Your task to perform on an android device: check the backup settings in the google photos Image 0: 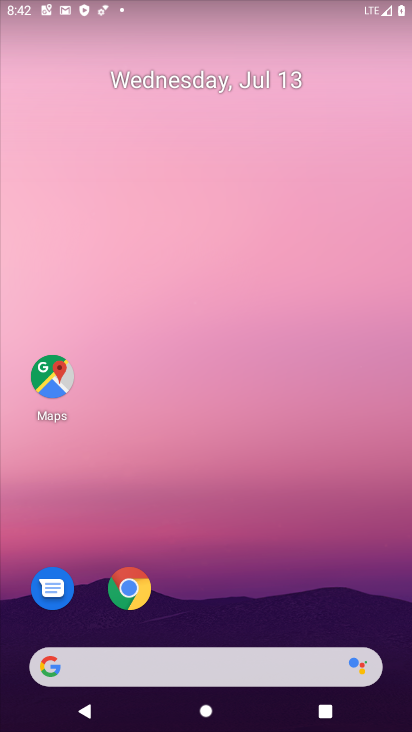
Step 0: drag from (239, 612) to (243, 181)
Your task to perform on an android device: check the backup settings in the google photos Image 1: 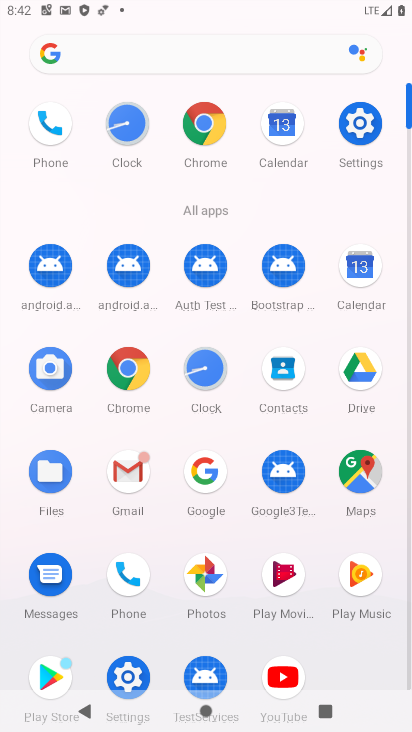
Step 1: click (210, 569)
Your task to perform on an android device: check the backup settings in the google photos Image 2: 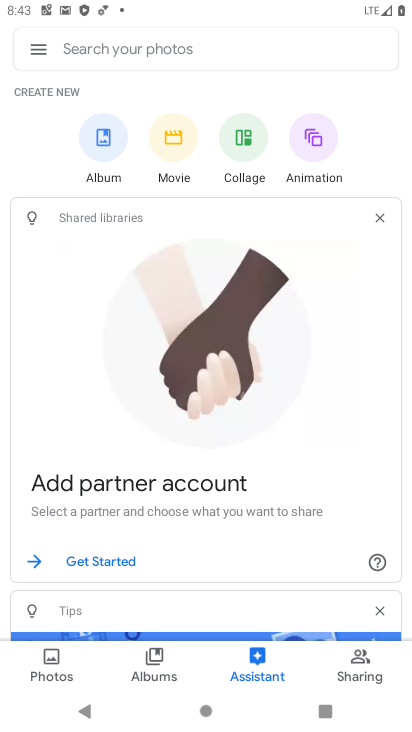
Step 2: click (38, 48)
Your task to perform on an android device: check the backup settings in the google photos Image 3: 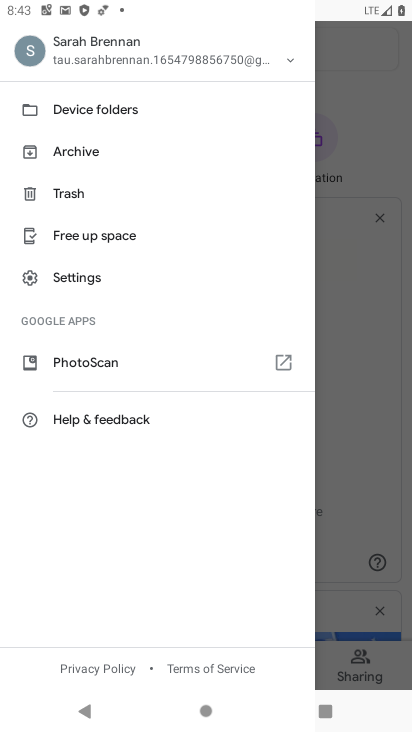
Step 3: click (80, 270)
Your task to perform on an android device: check the backup settings in the google photos Image 4: 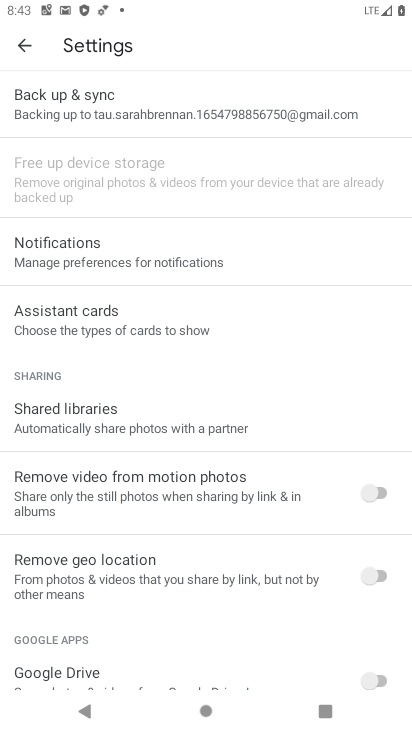
Step 4: click (116, 106)
Your task to perform on an android device: check the backup settings in the google photos Image 5: 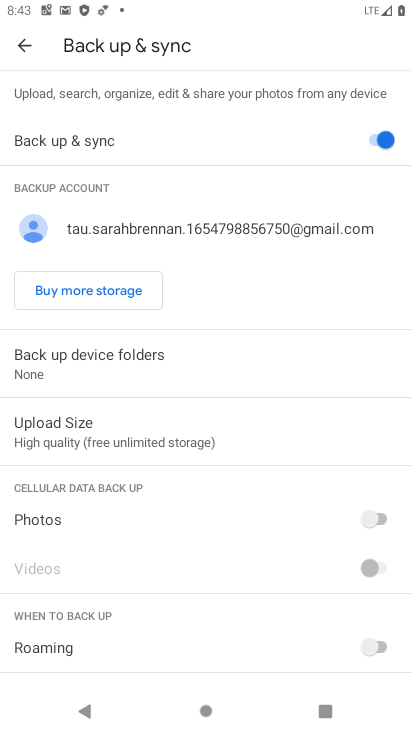
Step 5: task complete